Your task to perform on an android device: Open internet settings Image 0: 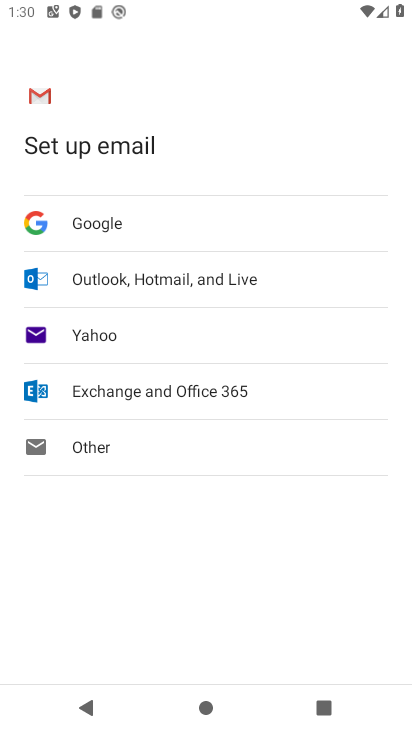
Step 0: press home button
Your task to perform on an android device: Open internet settings Image 1: 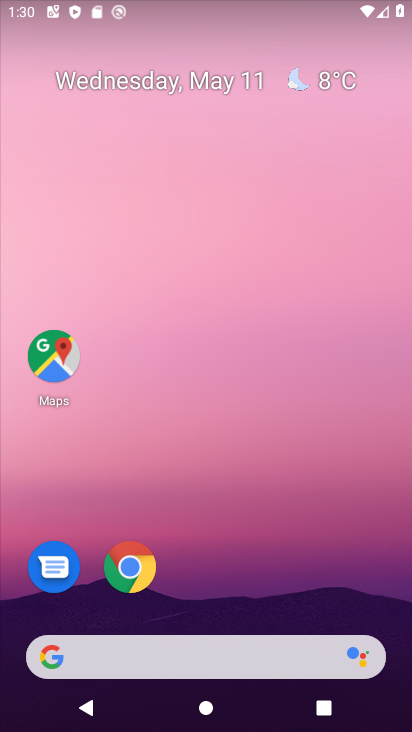
Step 1: drag from (330, 474) to (268, 204)
Your task to perform on an android device: Open internet settings Image 2: 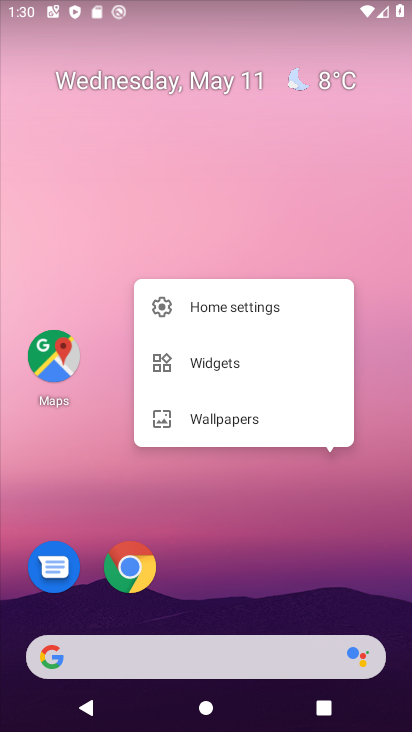
Step 2: drag from (358, 560) to (291, 205)
Your task to perform on an android device: Open internet settings Image 3: 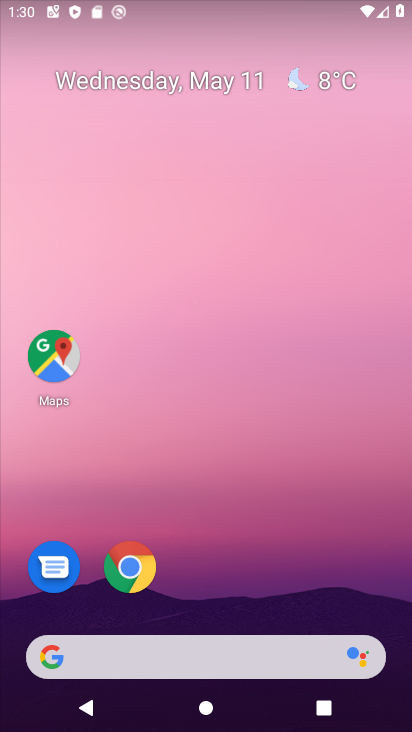
Step 3: drag from (359, 621) to (336, 283)
Your task to perform on an android device: Open internet settings Image 4: 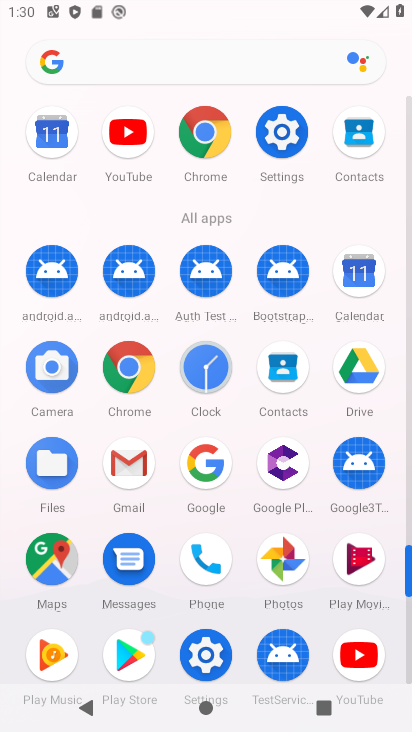
Step 4: click (286, 138)
Your task to perform on an android device: Open internet settings Image 5: 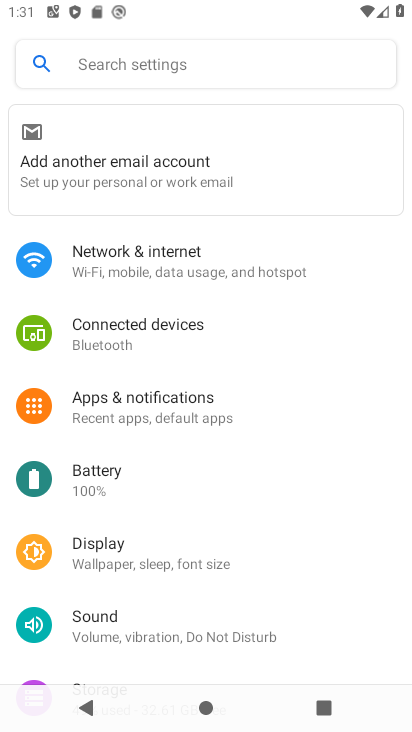
Step 5: click (156, 272)
Your task to perform on an android device: Open internet settings Image 6: 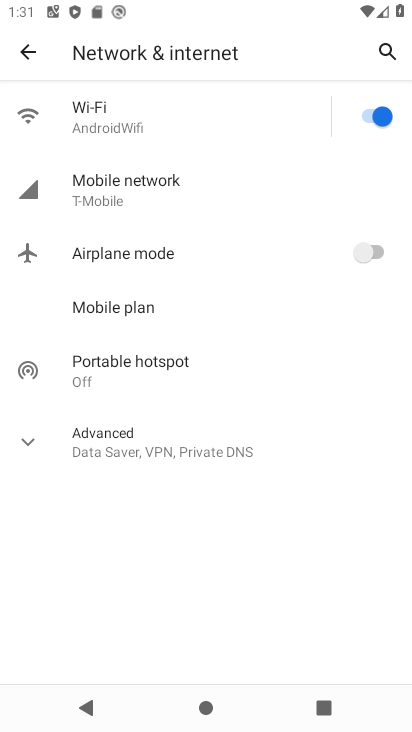
Step 6: task complete